Your task to perform on an android device: What's the weather today? Image 0: 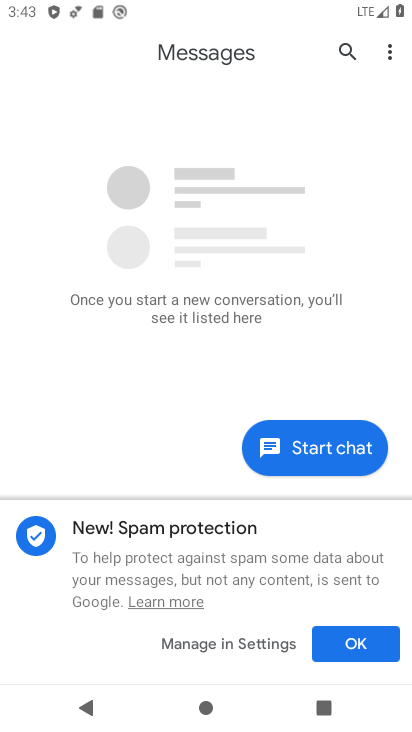
Step 0: press back button
Your task to perform on an android device: What's the weather today? Image 1: 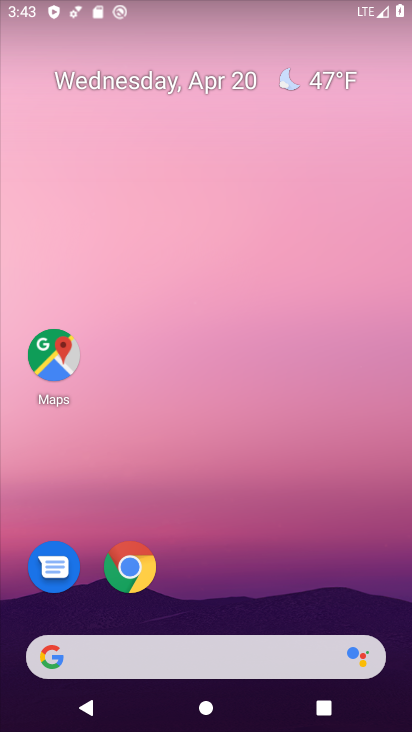
Step 1: drag from (262, 541) to (248, 31)
Your task to perform on an android device: What's the weather today? Image 2: 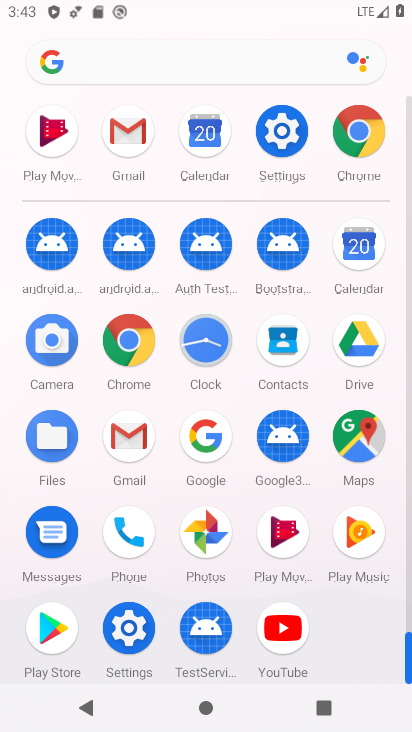
Step 2: click (127, 338)
Your task to perform on an android device: What's the weather today? Image 3: 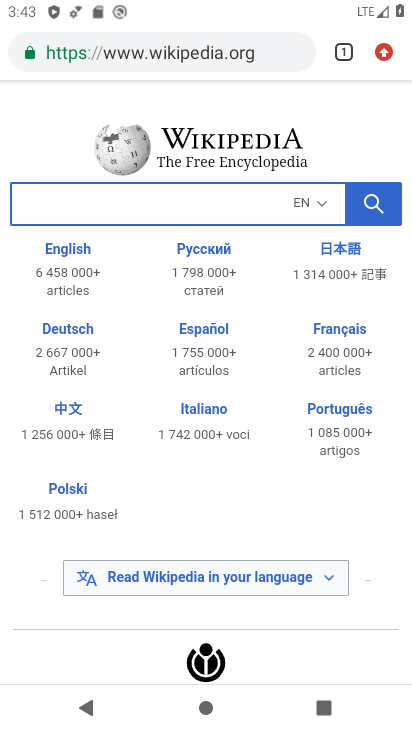
Step 3: click (172, 44)
Your task to perform on an android device: What's the weather today? Image 4: 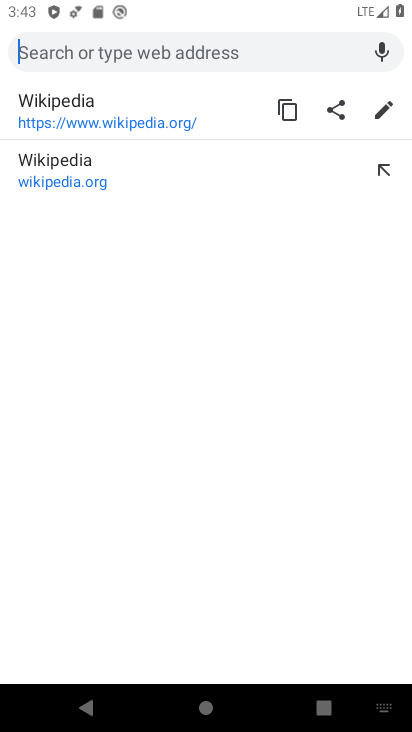
Step 4: type "weather today"
Your task to perform on an android device: What's the weather today? Image 5: 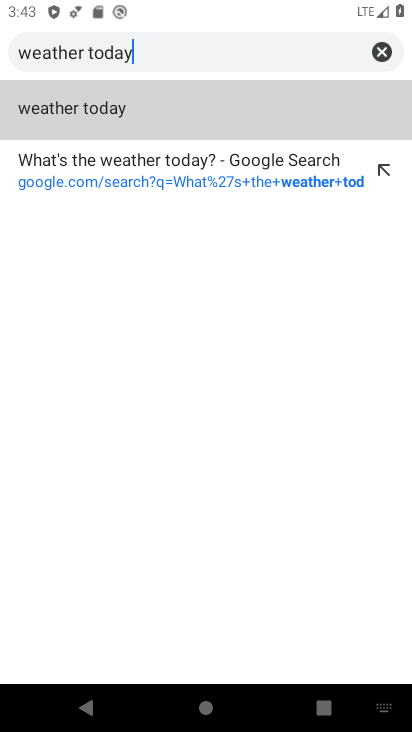
Step 5: type ""
Your task to perform on an android device: What's the weather today? Image 6: 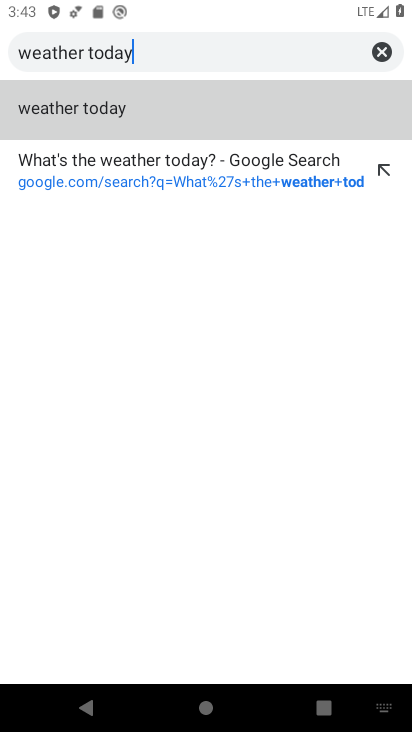
Step 6: click (174, 141)
Your task to perform on an android device: What's the weather today? Image 7: 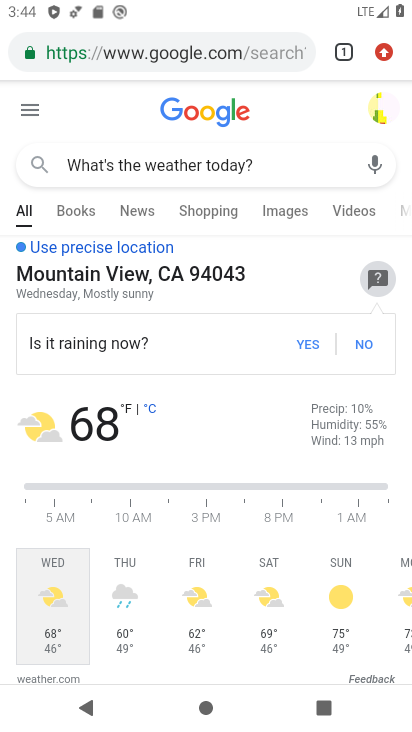
Step 7: task complete